Your task to perform on an android device: Open notification settings Image 0: 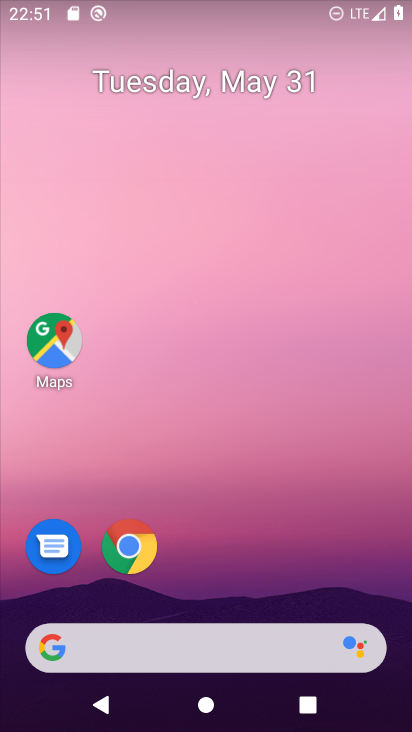
Step 0: drag from (385, 620) to (355, 73)
Your task to perform on an android device: Open notification settings Image 1: 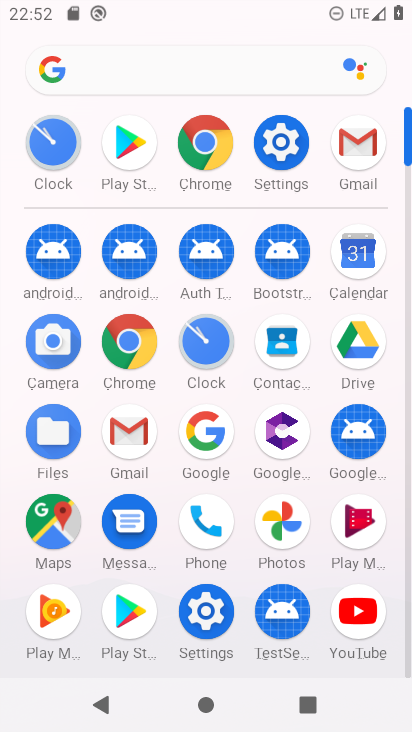
Step 1: click (215, 613)
Your task to perform on an android device: Open notification settings Image 2: 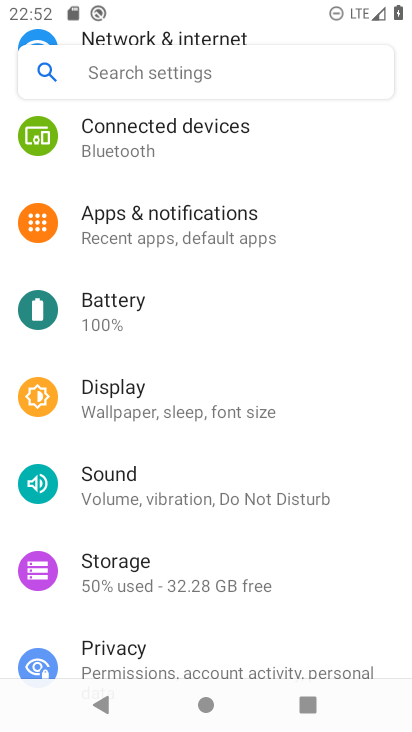
Step 2: drag from (309, 162) to (339, 491)
Your task to perform on an android device: Open notification settings Image 3: 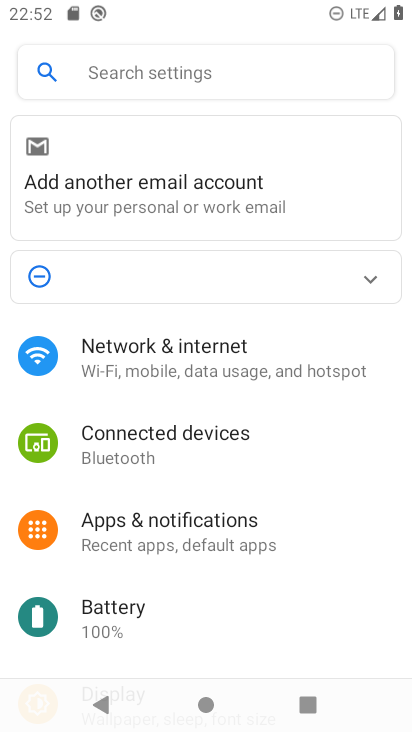
Step 3: click (158, 365)
Your task to perform on an android device: Open notification settings Image 4: 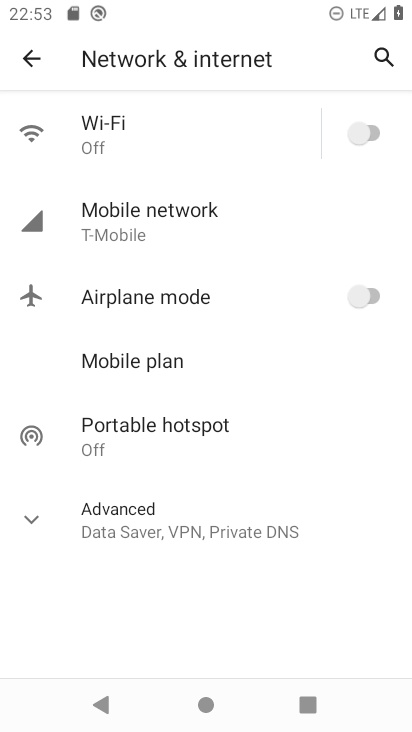
Step 4: click (23, 63)
Your task to perform on an android device: Open notification settings Image 5: 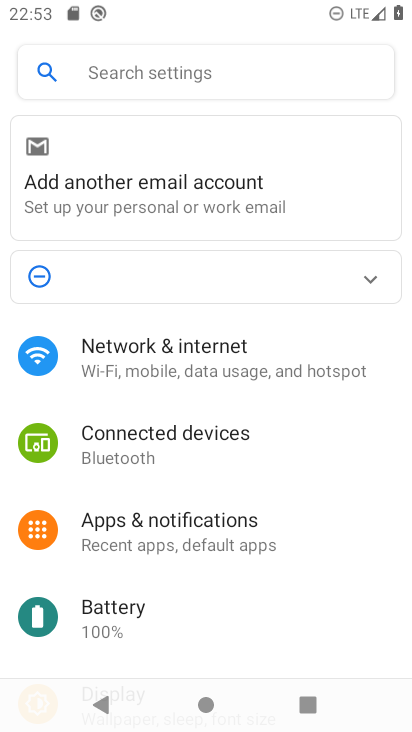
Step 5: click (147, 529)
Your task to perform on an android device: Open notification settings Image 6: 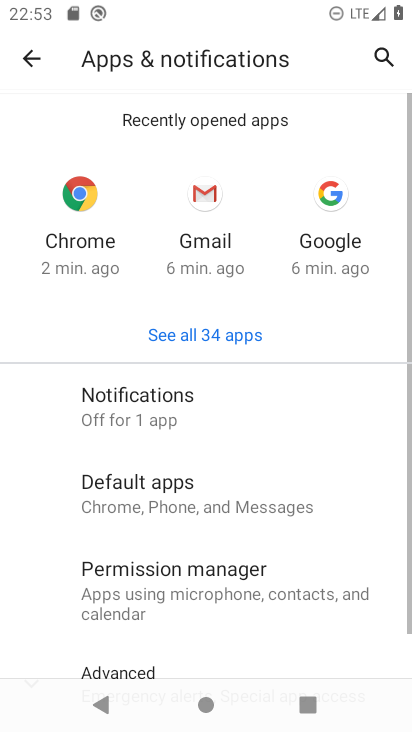
Step 6: click (132, 406)
Your task to perform on an android device: Open notification settings Image 7: 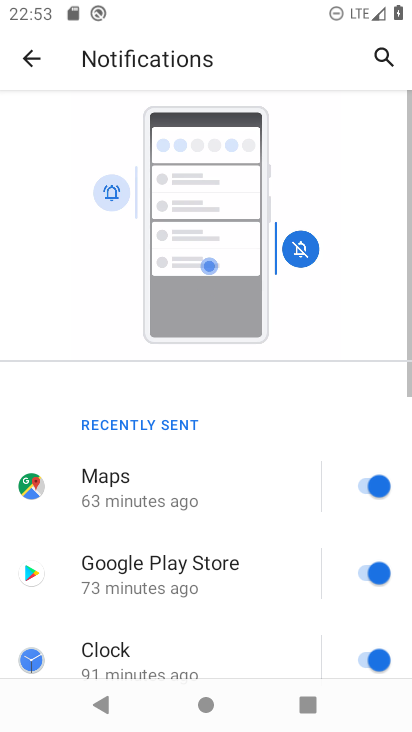
Step 7: task complete